Your task to perform on an android device: Search for the Best selling coffee table on Ikea Image 0: 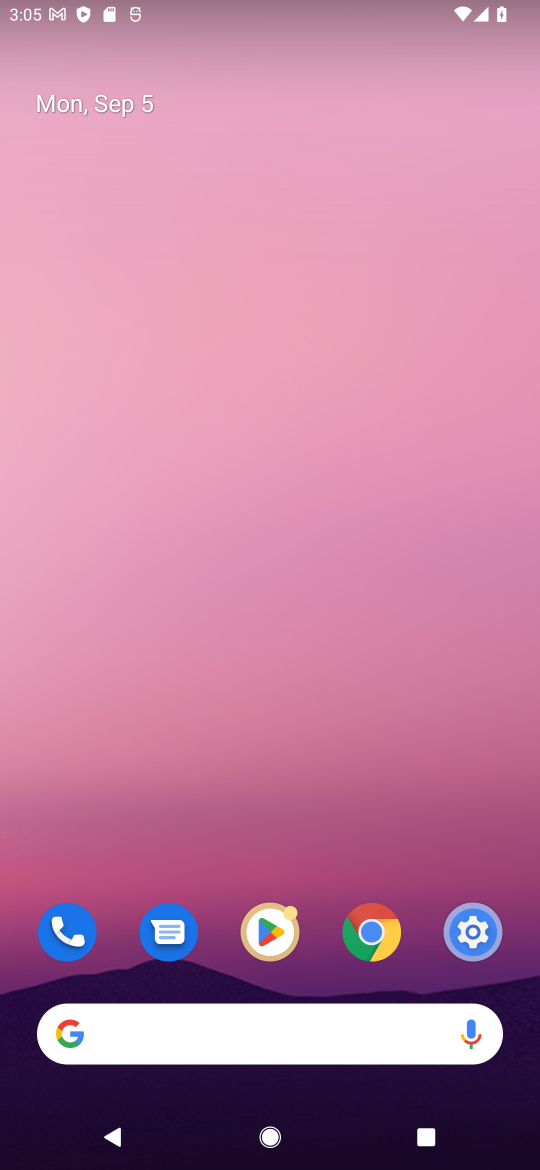
Step 0: click (236, 1036)
Your task to perform on an android device: Search for the Best selling coffee table on Ikea Image 1: 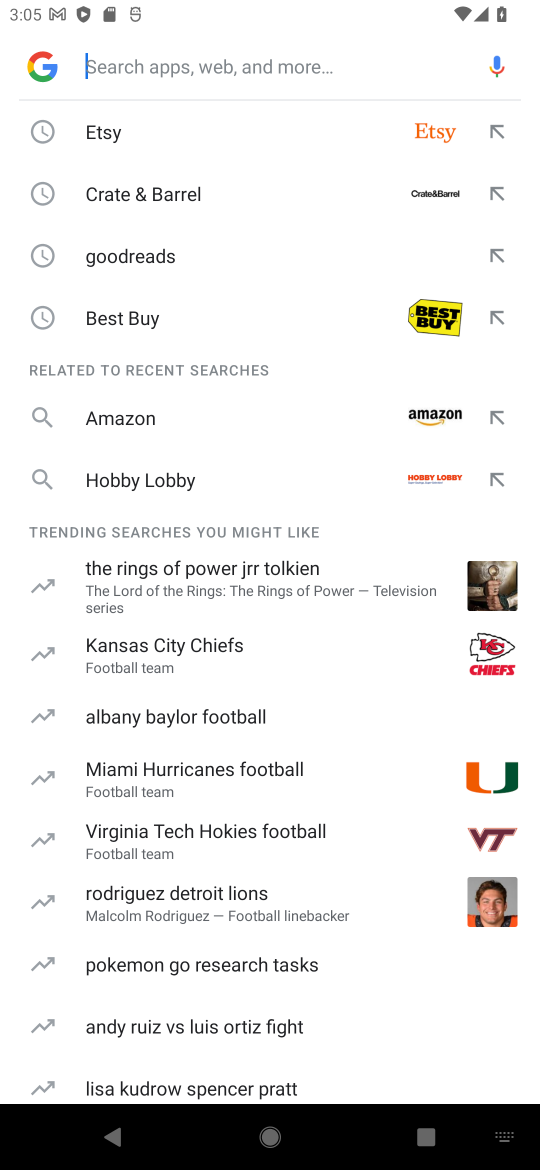
Step 1: type "Ikea"
Your task to perform on an android device: Search for the Best selling coffee table on Ikea Image 2: 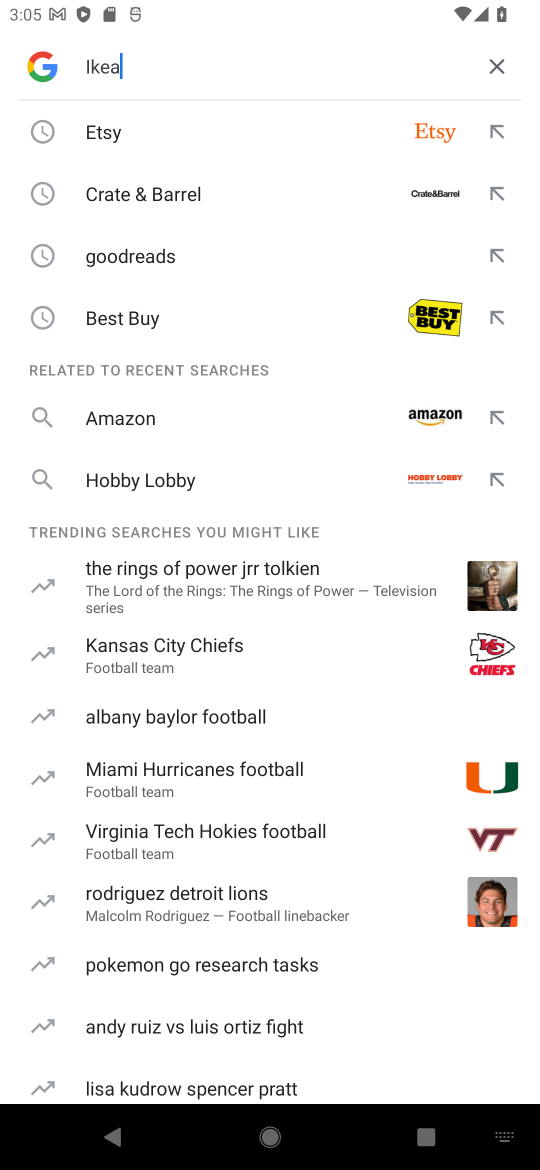
Step 2: type ""
Your task to perform on an android device: Search for the Best selling coffee table on Ikea Image 3: 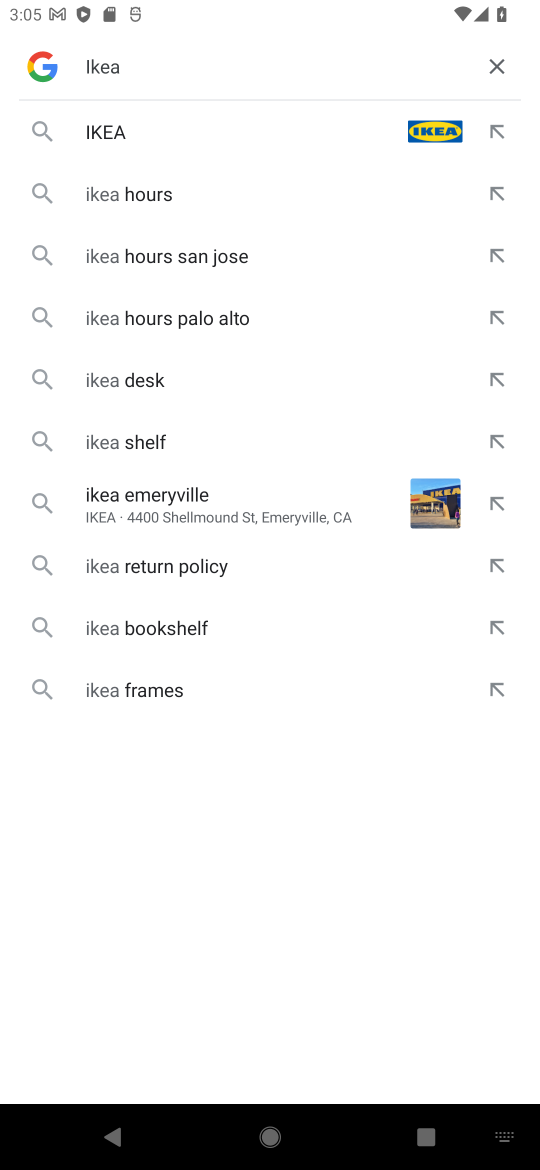
Step 3: click (117, 138)
Your task to perform on an android device: Search for the Best selling coffee table on Ikea Image 4: 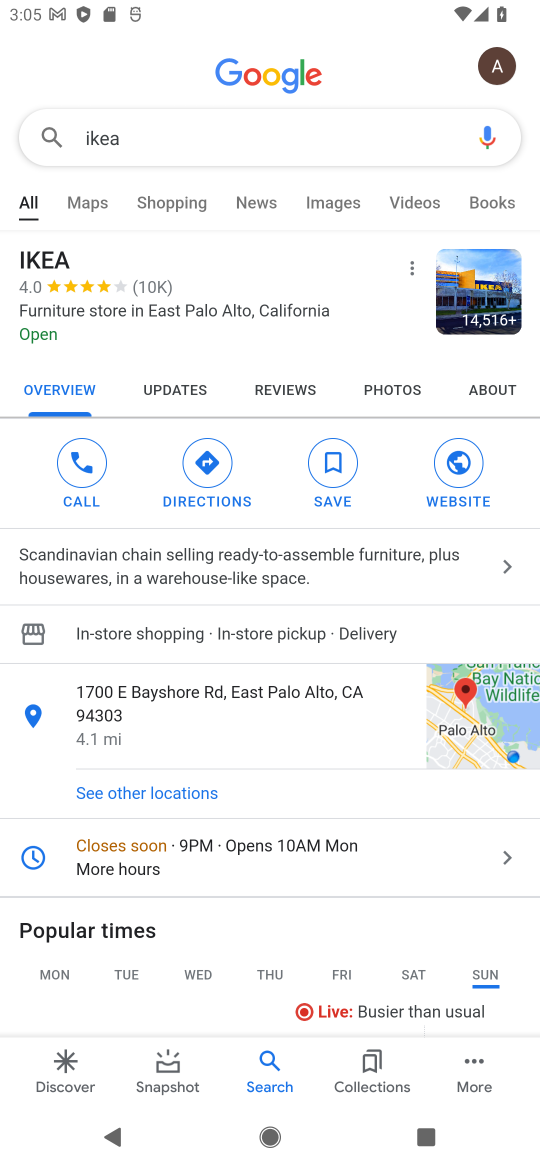
Step 4: drag from (282, 831) to (327, 386)
Your task to perform on an android device: Search for the Best selling coffee table on Ikea Image 5: 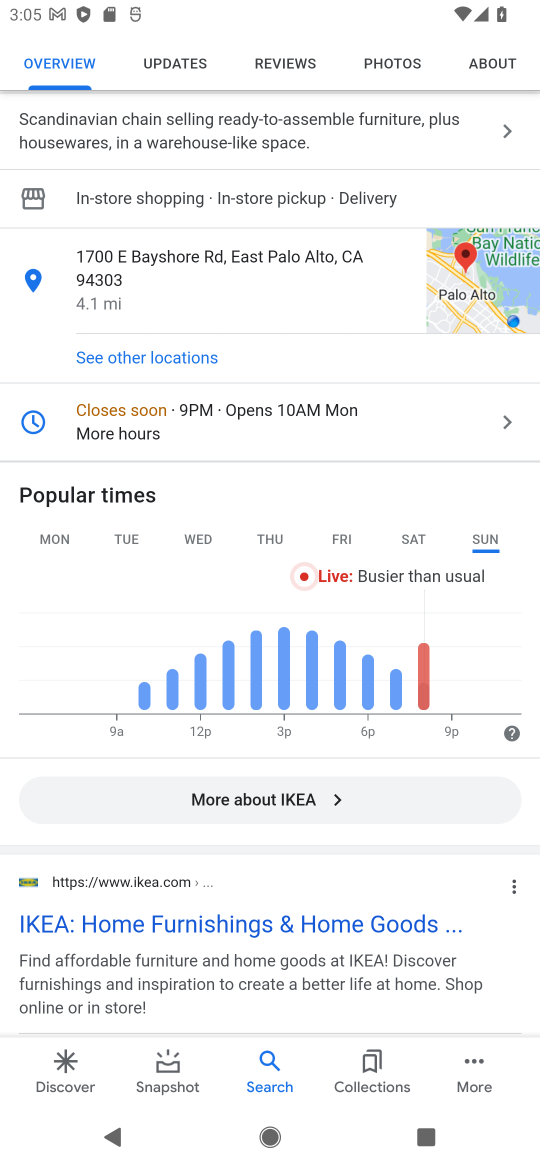
Step 5: drag from (248, 890) to (274, 410)
Your task to perform on an android device: Search for the Best selling coffee table on Ikea Image 6: 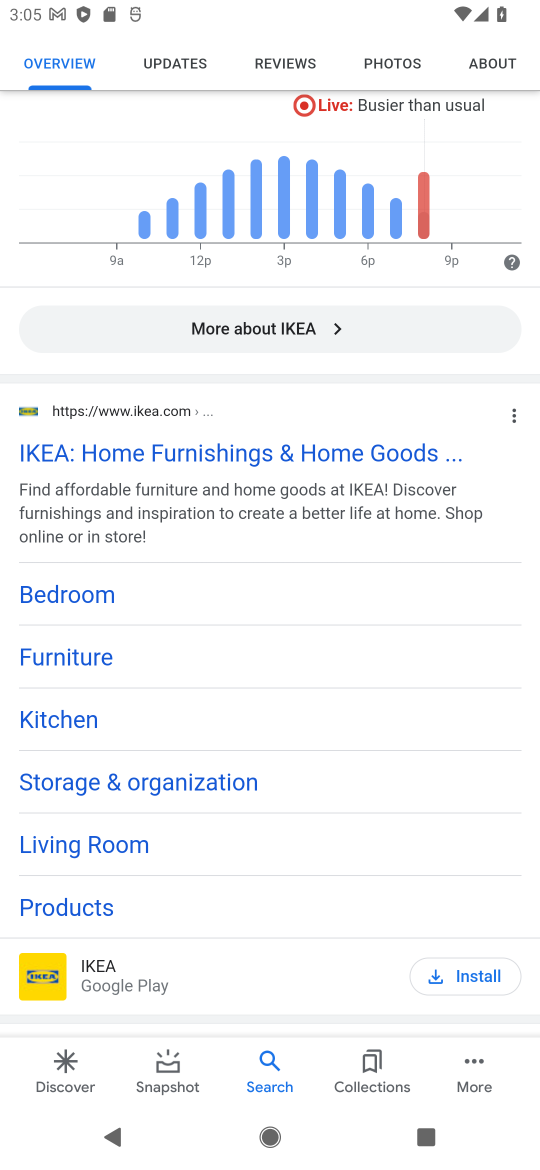
Step 6: click (163, 445)
Your task to perform on an android device: Search for the Best selling coffee table on Ikea Image 7: 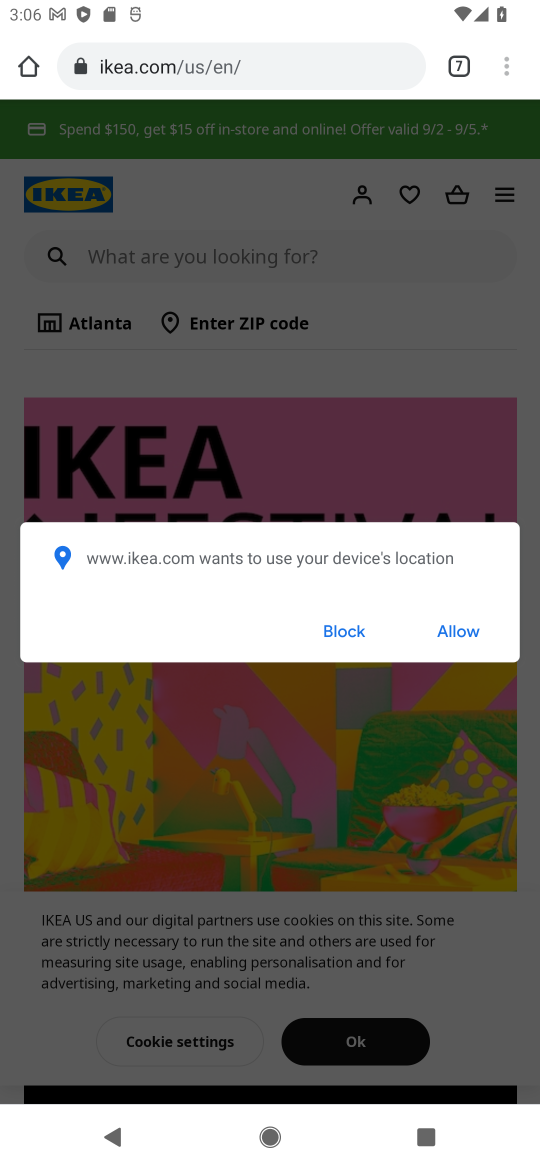
Step 7: click (445, 636)
Your task to perform on an android device: Search for the Best selling coffee table on Ikea Image 8: 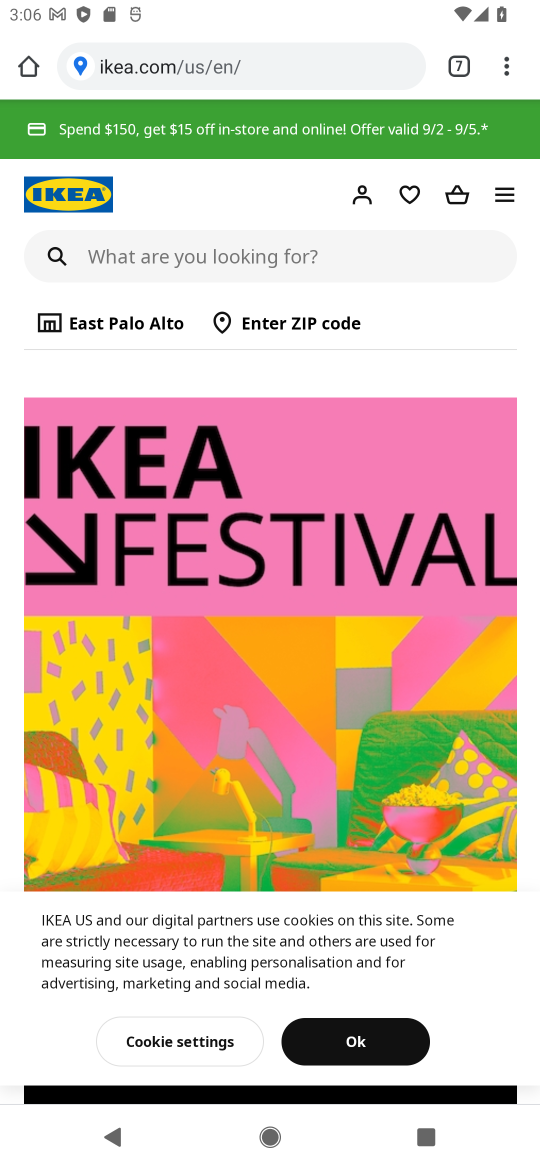
Step 8: click (177, 246)
Your task to perform on an android device: Search for the Best selling coffee table on Ikea Image 9: 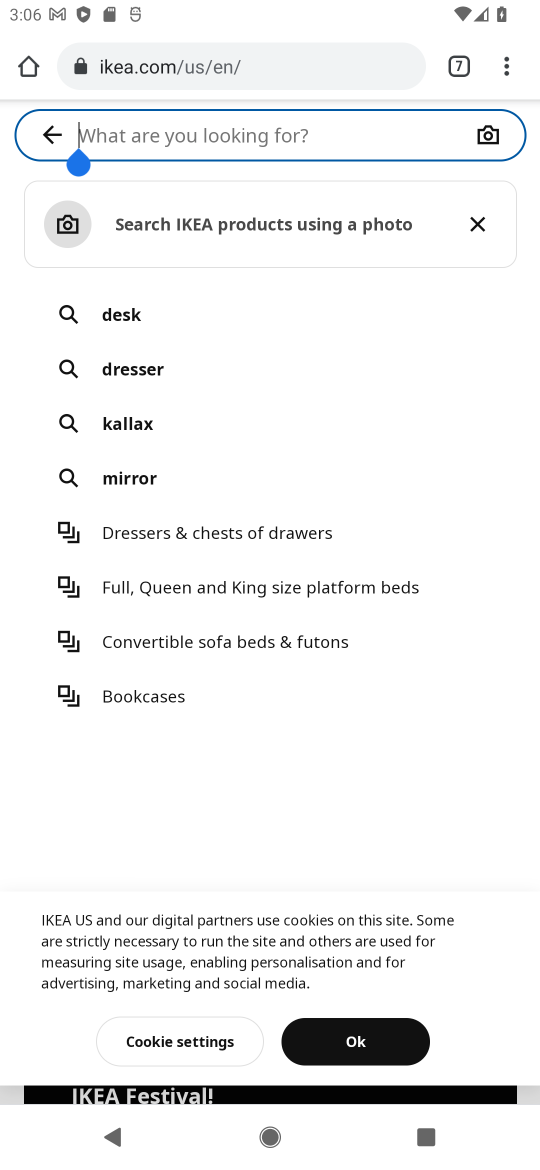
Step 9: type "coffee table "
Your task to perform on an android device: Search for the Best selling coffee table on Ikea Image 10: 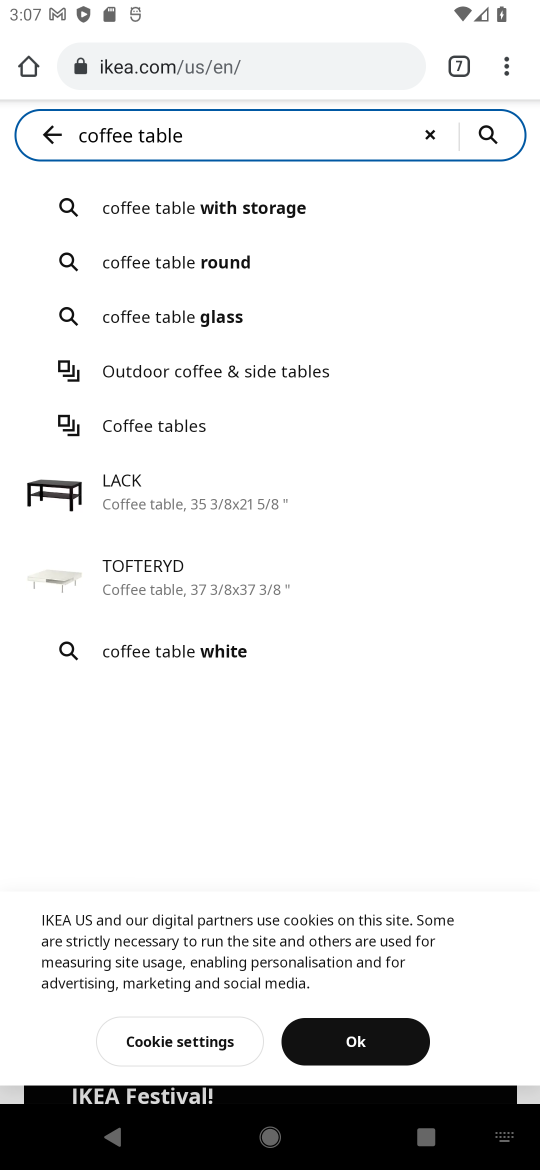
Step 10: click (243, 430)
Your task to perform on an android device: Search for the Best selling coffee table on Ikea Image 11: 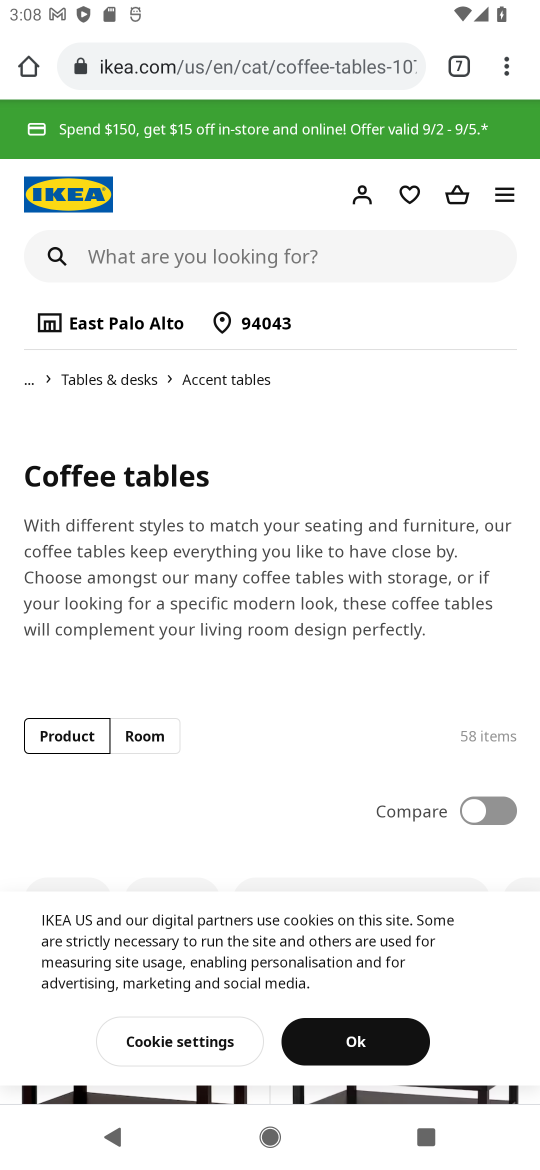
Step 11: click (306, 349)
Your task to perform on an android device: Search for the Best selling coffee table on Ikea Image 12: 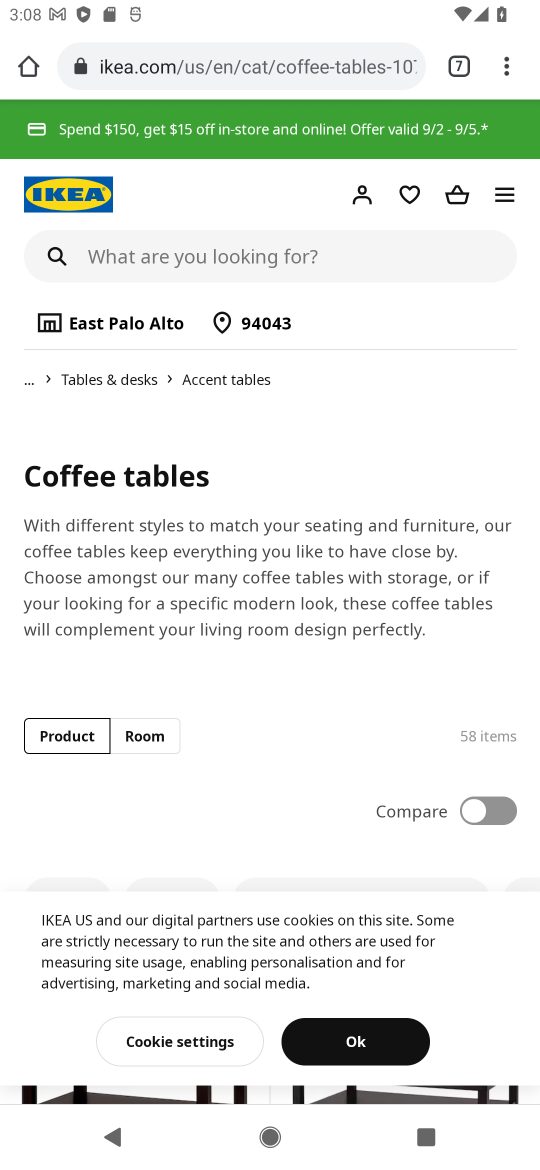
Step 12: click (282, 440)
Your task to perform on an android device: Search for the Best selling coffee table on Ikea Image 13: 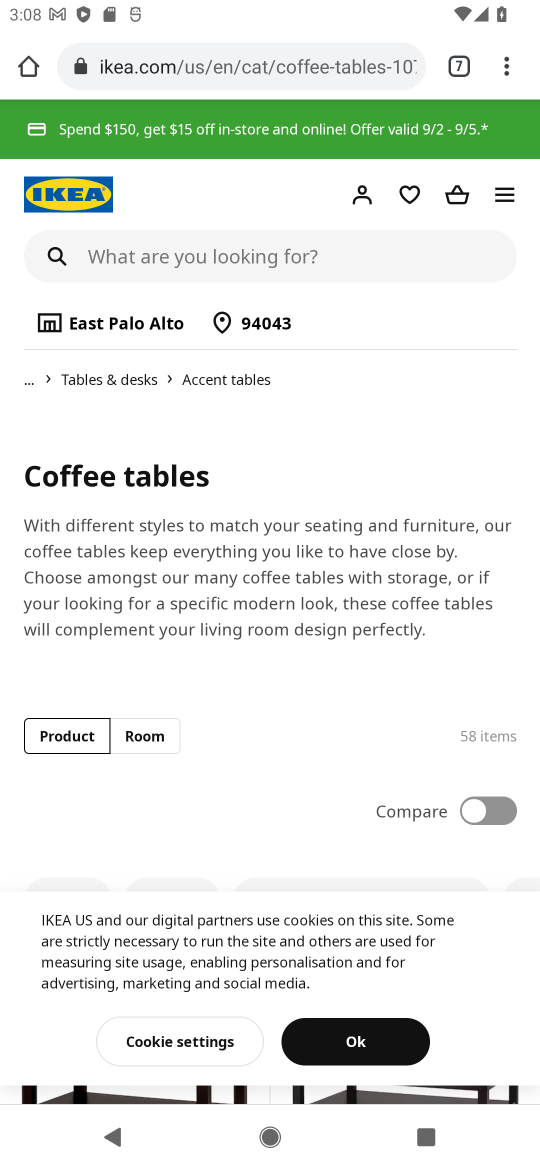
Step 13: task complete